Your task to perform on an android device: create a new album in the google photos Image 0: 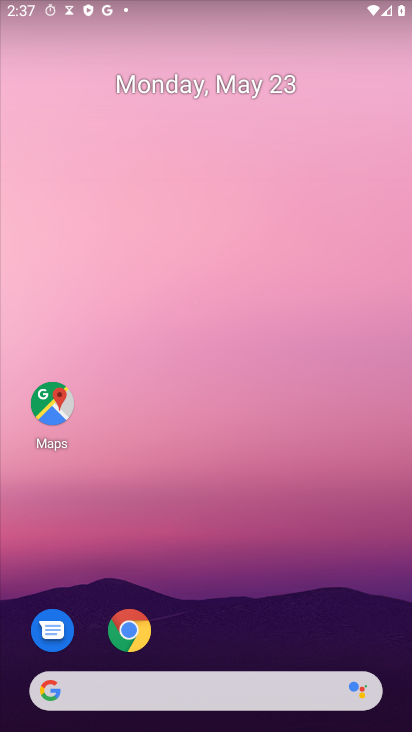
Step 0: drag from (262, 590) to (287, 63)
Your task to perform on an android device: create a new album in the google photos Image 1: 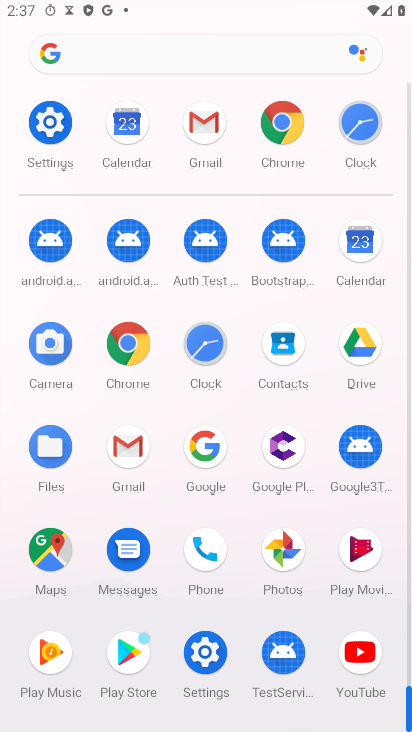
Step 1: click (266, 549)
Your task to perform on an android device: create a new album in the google photos Image 2: 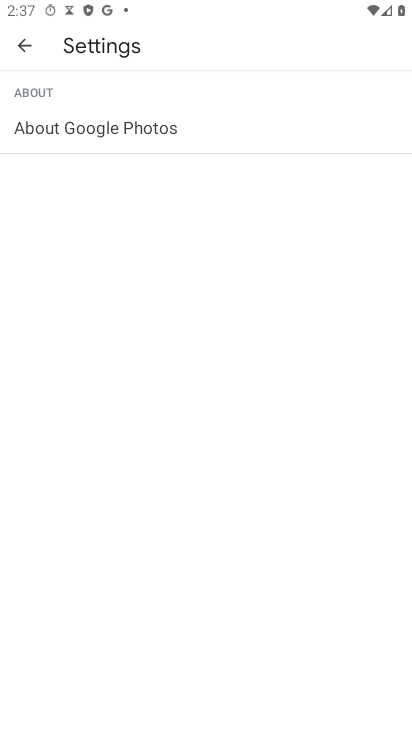
Step 2: click (20, 47)
Your task to perform on an android device: create a new album in the google photos Image 3: 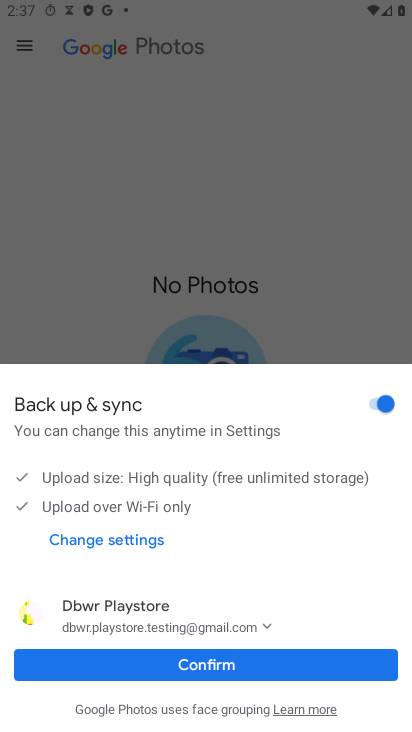
Step 3: click (215, 669)
Your task to perform on an android device: create a new album in the google photos Image 4: 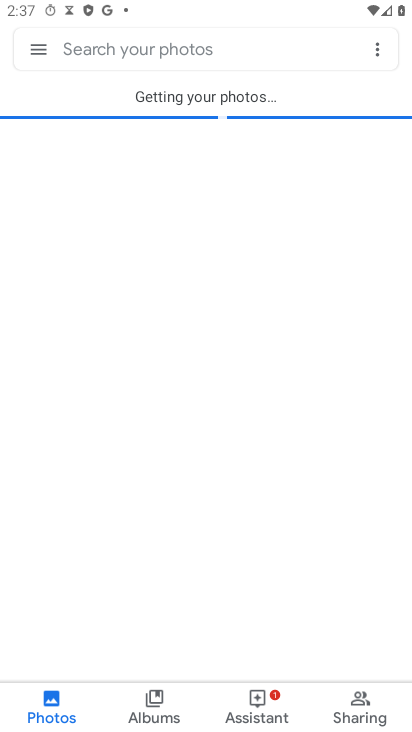
Step 4: click (155, 709)
Your task to perform on an android device: create a new album in the google photos Image 5: 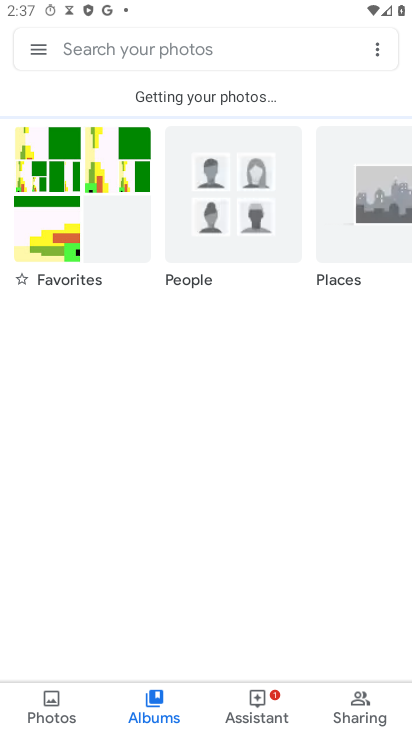
Step 5: task complete